Your task to perform on an android device: Open settings Image 0: 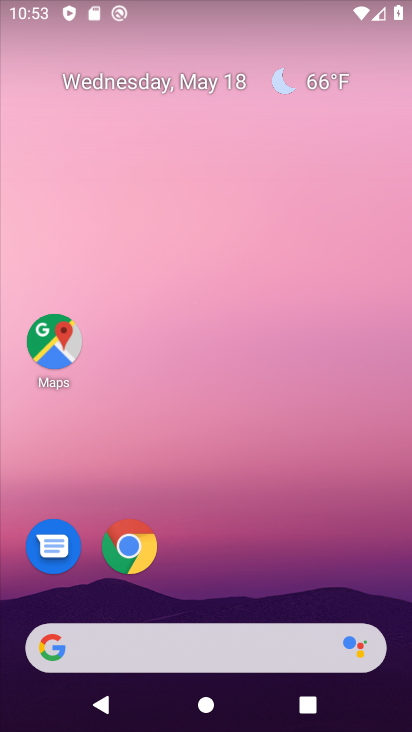
Step 0: drag from (234, 725) to (234, 127)
Your task to perform on an android device: Open settings Image 1: 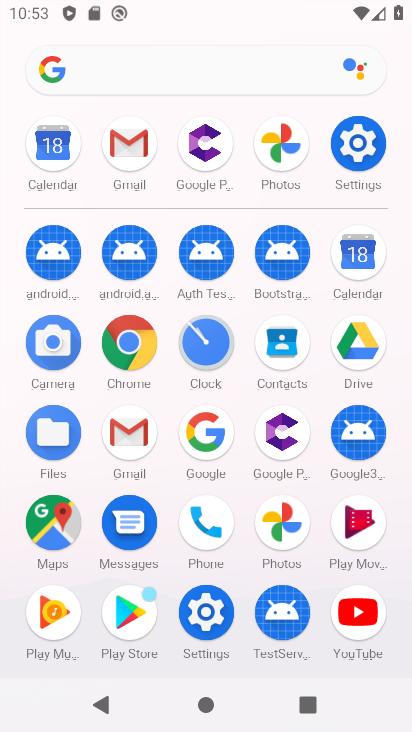
Step 1: click (361, 141)
Your task to perform on an android device: Open settings Image 2: 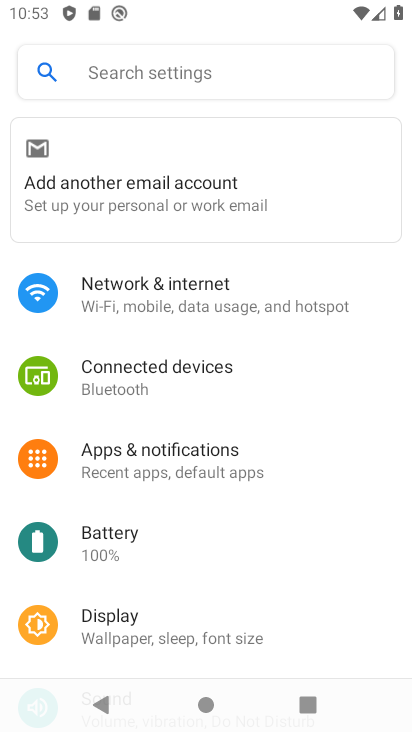
Step 2: task complete